Your task to perform on an android device: toggle wifi Image 0: 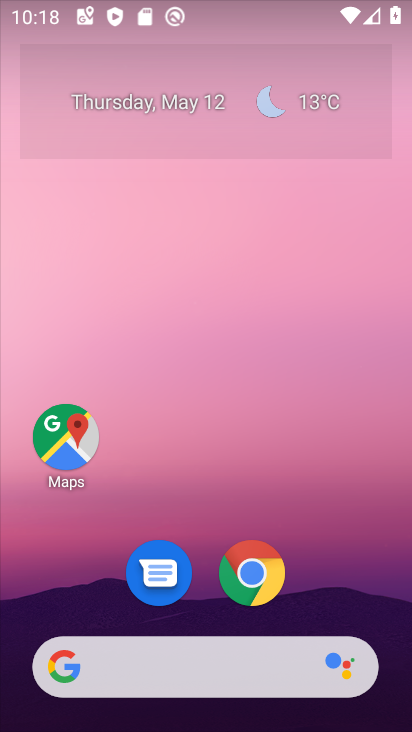
Step 0: drag from (223, 640) to (126, 17)
Your task to perform on an android device: toggle wifi Image 1: 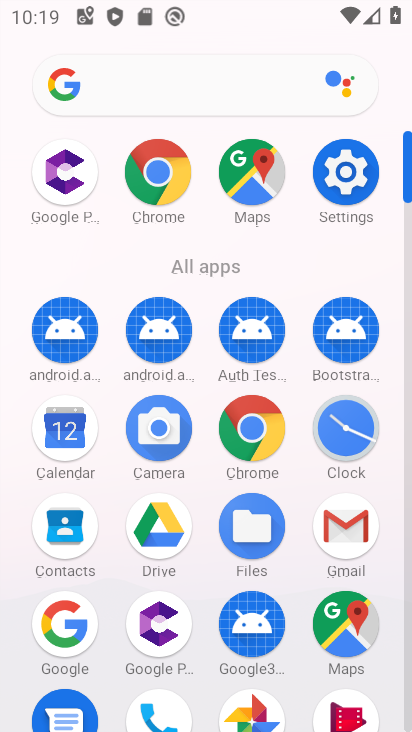
Step 1: click (343, 173)
Your task to perform on an android device: toggle wifi Image 2: 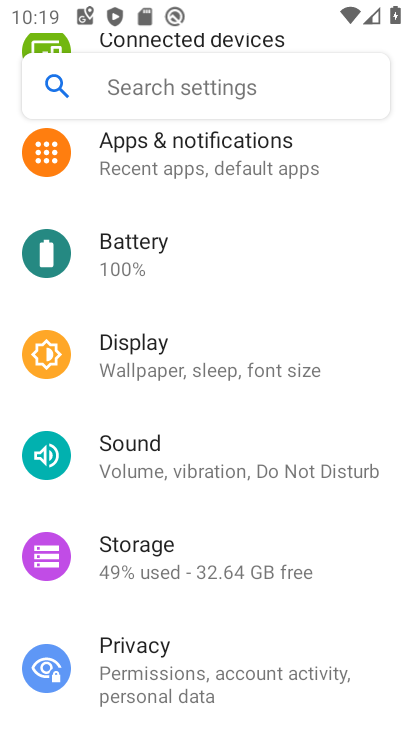
Step 2: drag from (127, 169) to (150, 606)
Your task to perform on an android device: toggle wifi Image 3: 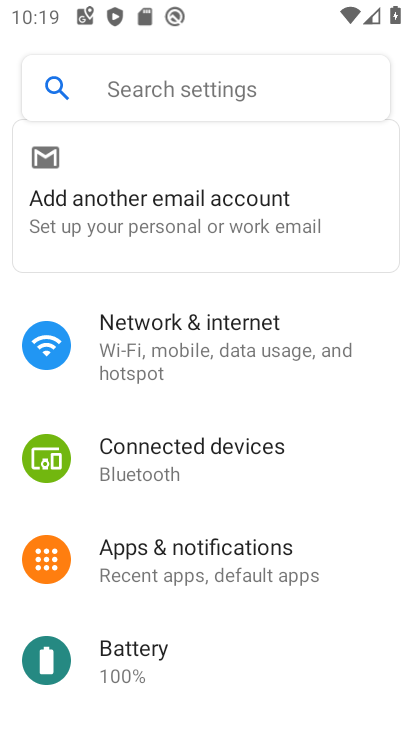
Step 3: click (188, 329)
Your task to perform on an android device: toggle wifi Image 4: 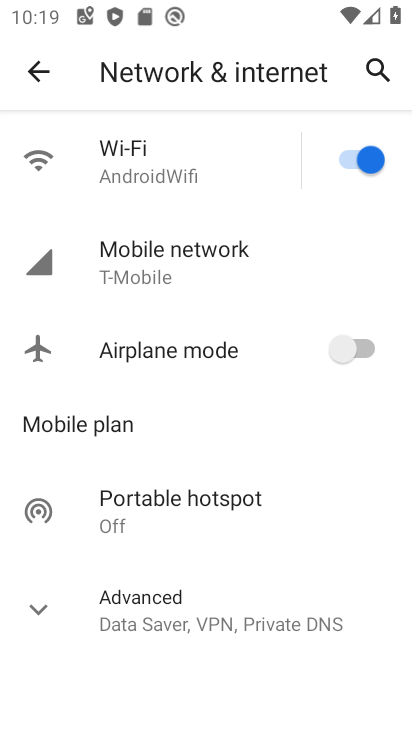
Step 4: click (159, 163)
Your task to perform on an android device: toggle wifi Image 5: 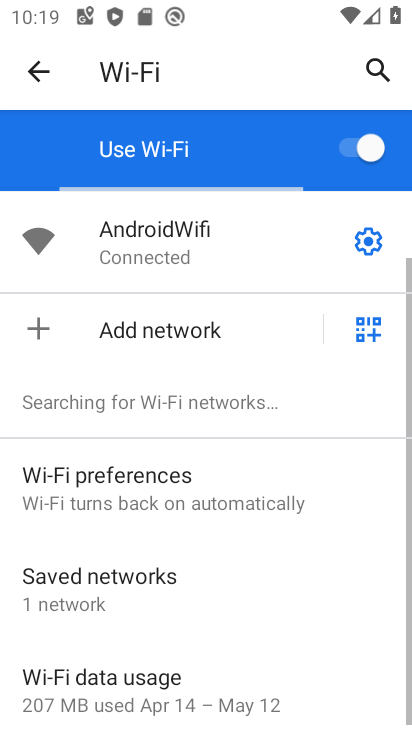
Step 5: click (356, 142)
Your task to perform on an android device: toggle wifi Image 6: 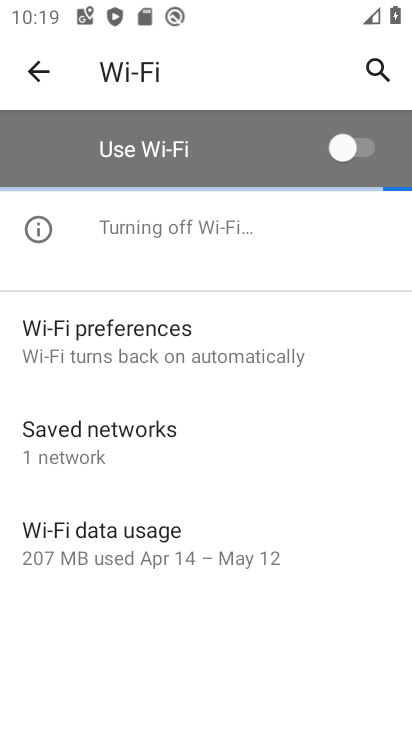
Step 6: task complete